Your task to perform on an android device: Open the map Image 0: 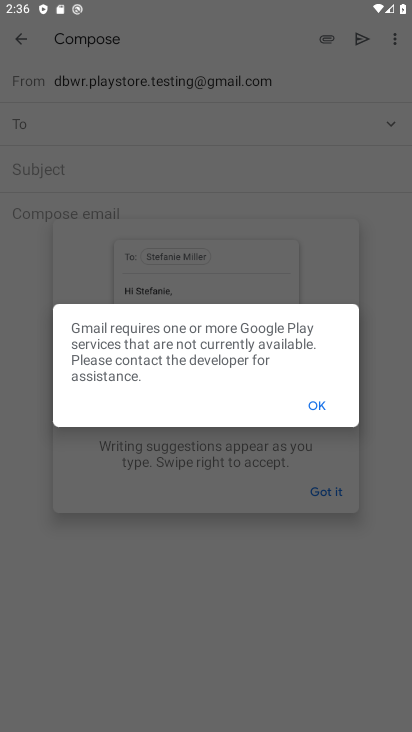
Step 0: press home button
Your task to perform on an android device: Open the map Image 1: 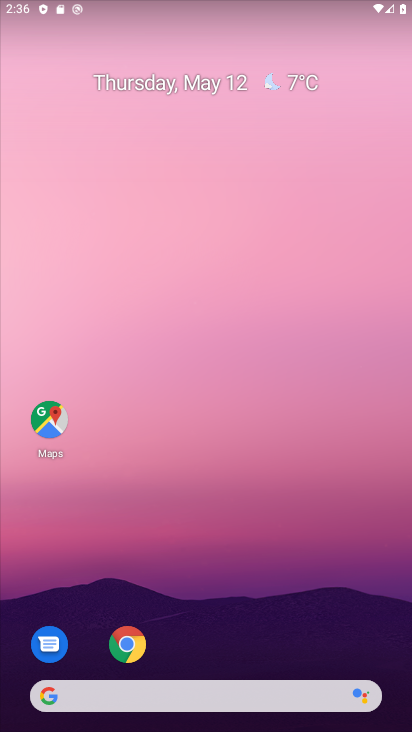
Step 1: click (63, 426)
Your task to perform on an android device: Open the map Image 2: 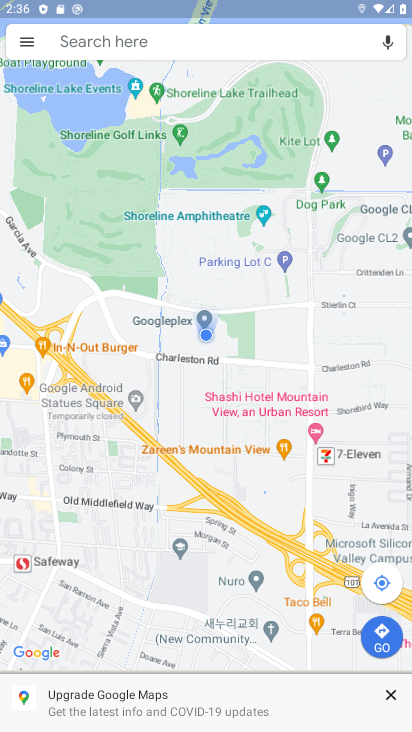
Step 2: task complete